Your task to perform on an android device: Search for Italian restaurants on Maps Image 0: 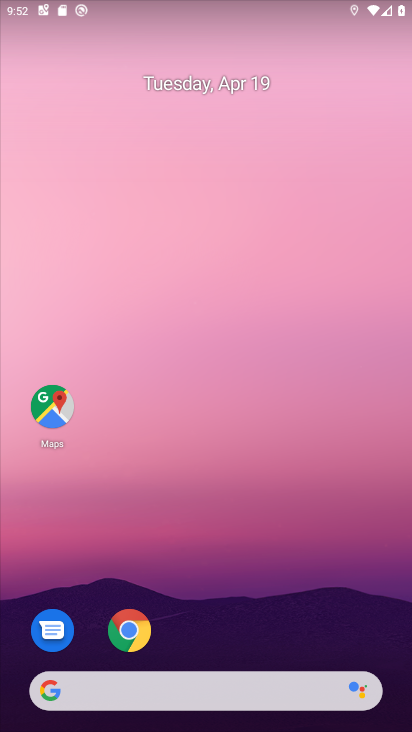
Step 0: click (47, 400)
Your task to perform on an android device: Search for Italian restaurants on Maps Image 1: 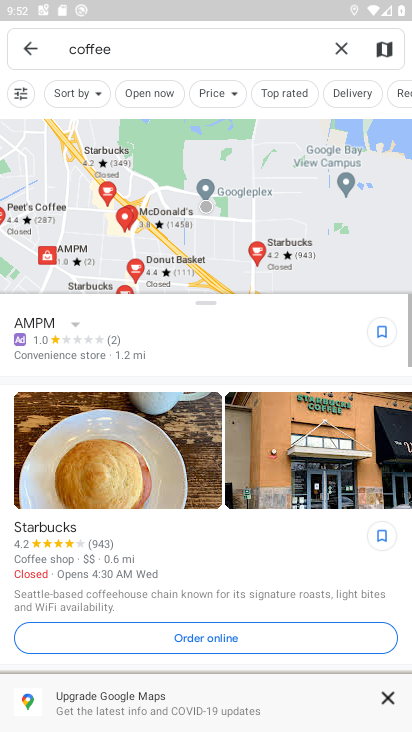
Step 1: click (337, 50)
Your task to perform on an android device: Search for Italian restaurants on Maps Image 2: 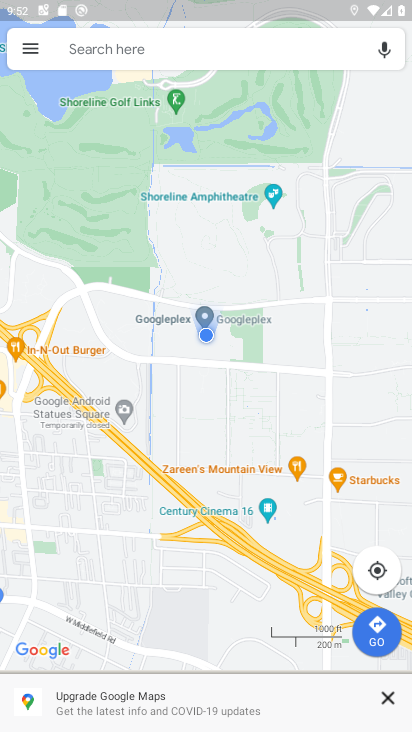
Step 2: click (202, 51)
Your task to perform on an android device: Search for Italian restaurants on Maps Image 3: 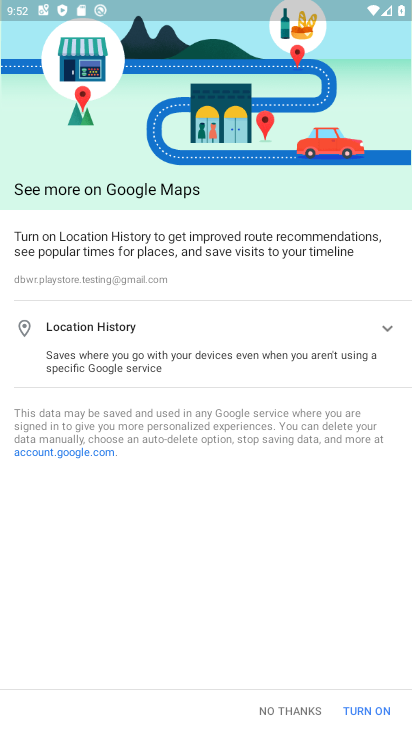
Step 3: press back button
Your task to perform on an android device: Search for Italian restaurants on Maps Image 4: 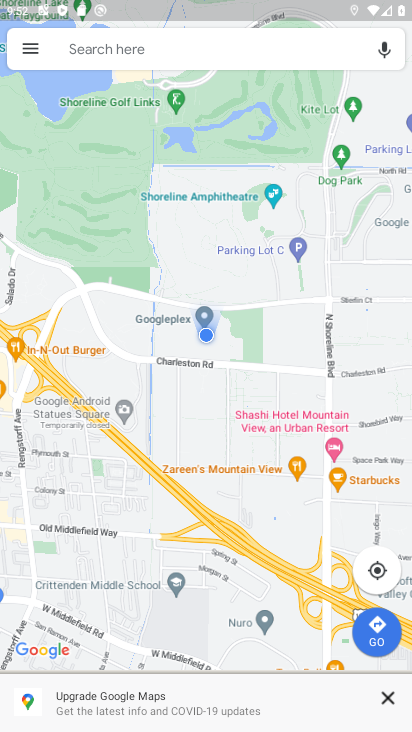
Step 4: click (92, 46)
Your task to perform on an android device: Search for Italian restaurants on Maps Image 5: 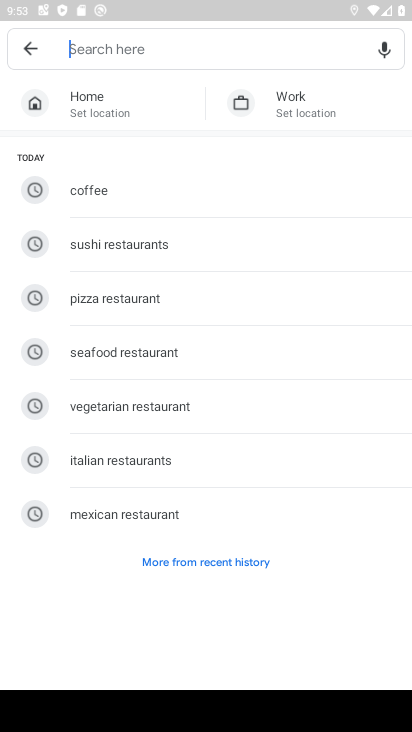
Step 5: click (108, 464)
Your task to perform on an android device: Search for Italian restaurants on Maps Image 6: 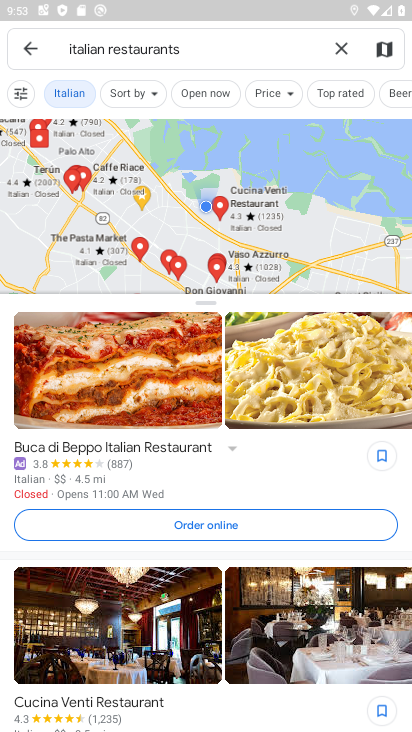
Step 6: task complete